Your task to perform on an android device: change your default location settings in chrome Image 0: 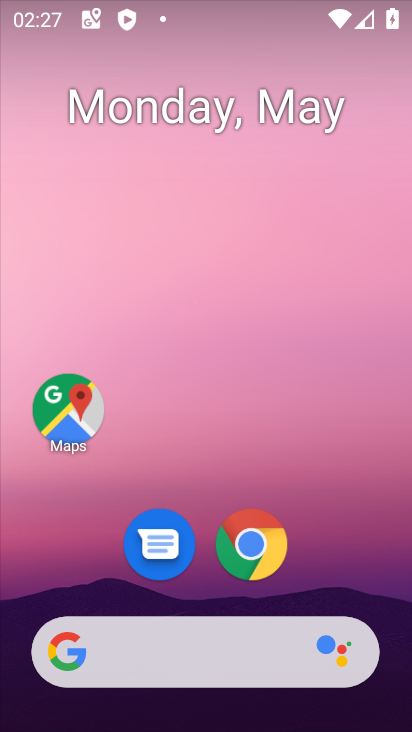
Step 0: drag from (371, 550) to (369, 220)
Your task to perform on an android device: change your default location settings in chrome Image 1: 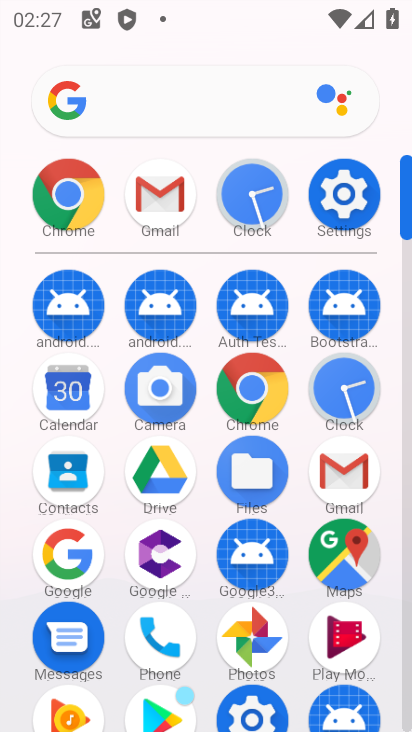
Step 1: click (269, 400)
Your task to perform on an android device: change your default location settings in chrome Image 2: 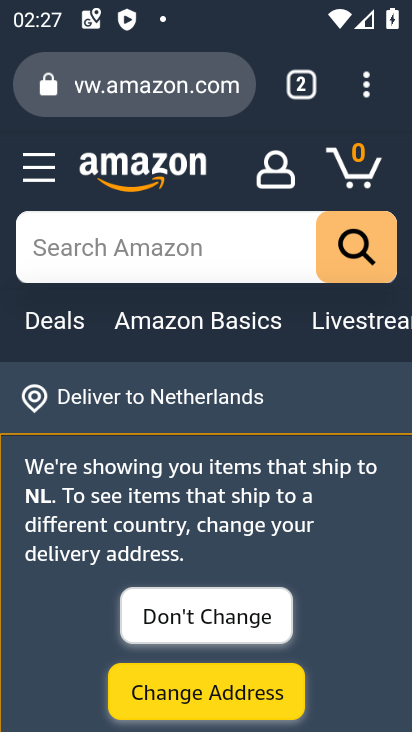
Step 2: click (366, 96)
Your task to perform on an android device: change your default location settings in chrome Image 3: 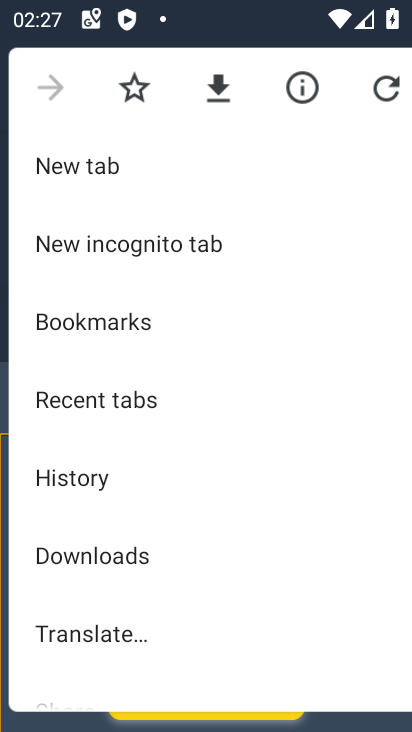
Step 3: drag from (299, 496) to (307, 361)
Your task to perform on an android device: change your default location settings in chrome Image 4: 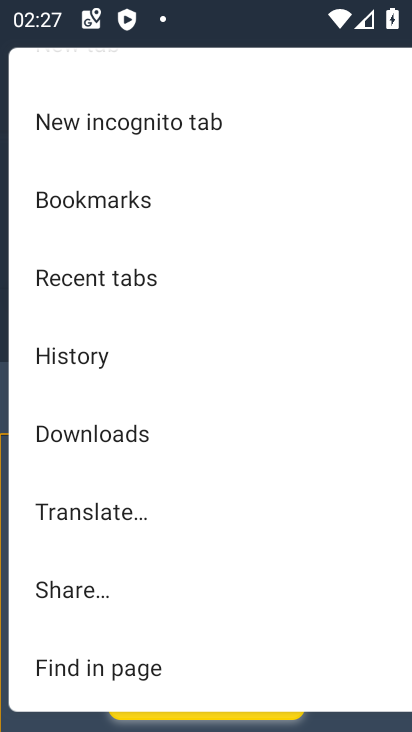
Step 4: drag from (304, 510) to (299, 357)
Your task to perform on an android device: change your default location settings in chrome Image 5: 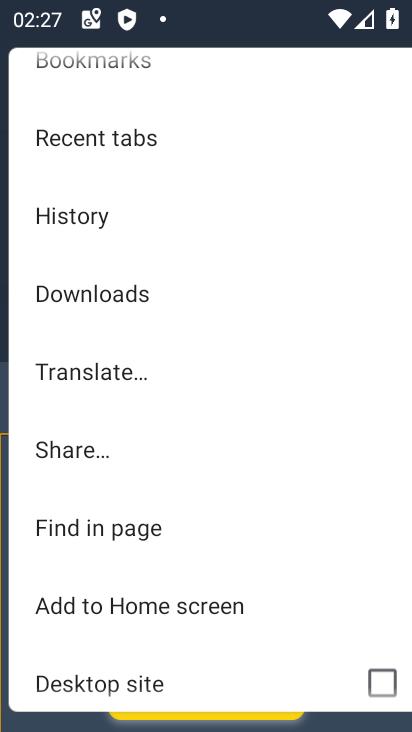
Step 5: drag from (332, 561) to (318, 328)
Your task to perform on an android device: change your default location settings in chrome Image 6: 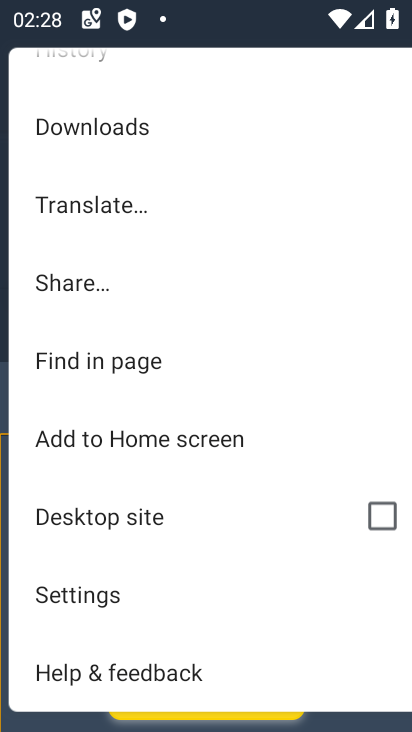
Step 6: drag from (287, 553) to (278, 451)
Your task to perform on an android device: change your default location settings in chrome Image 7: 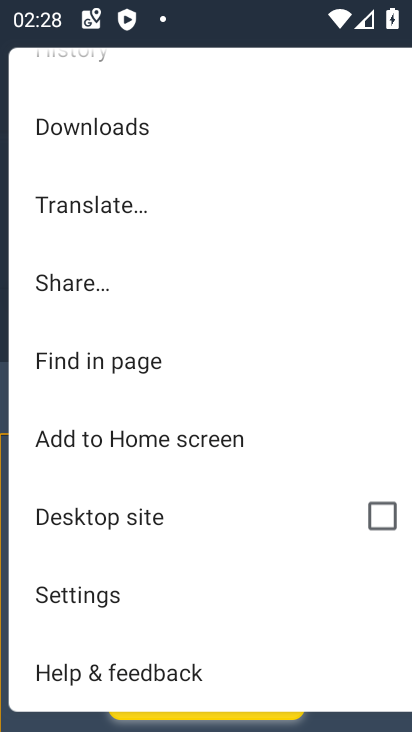
Step 7: click (139, 608)
Your task to perform on an android device: change your default location settings in chrome Image 8: 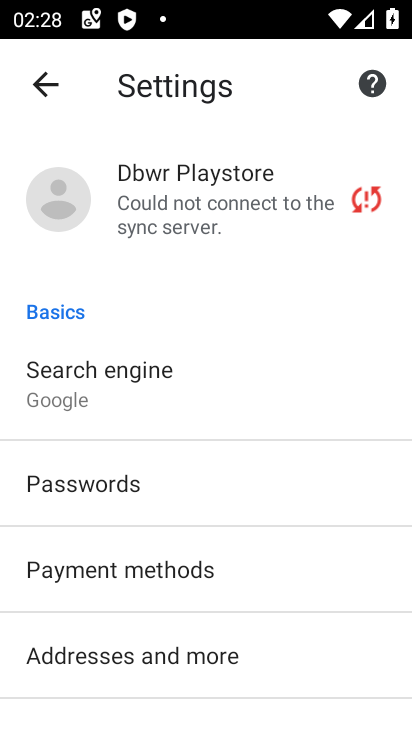
Step 8: drag from (294, 557) to (292, 447)
Your task to perform on an android device: change your default location settings in chrome Image 9: 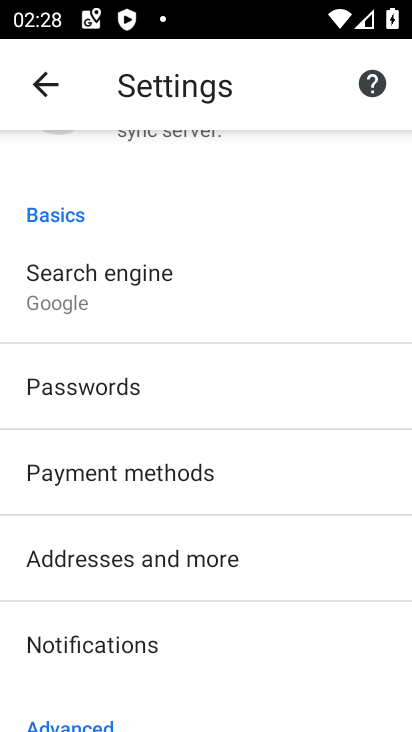
Step 9: drag from (290, 612) to (287, 453)
Your task to perform on an android device: change your default location settings in chrome Image 10: 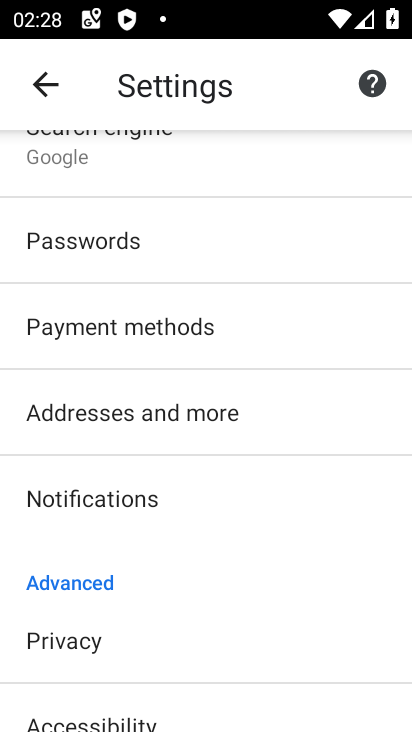
Step 10: drag from (275, 589) to (295, 468)
Your task to perform on an android device: change your default location settings in chrome Image 11: 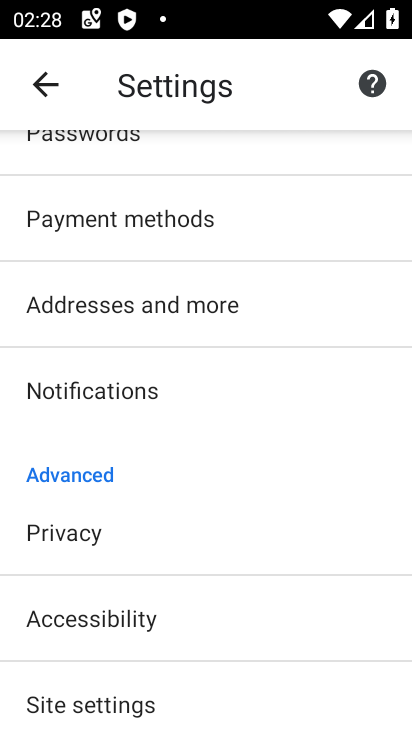
Step 11: drag from (279, 610) to (294, 476)
Your task to perform on an android device: change your default location settings in chrome Image 12: 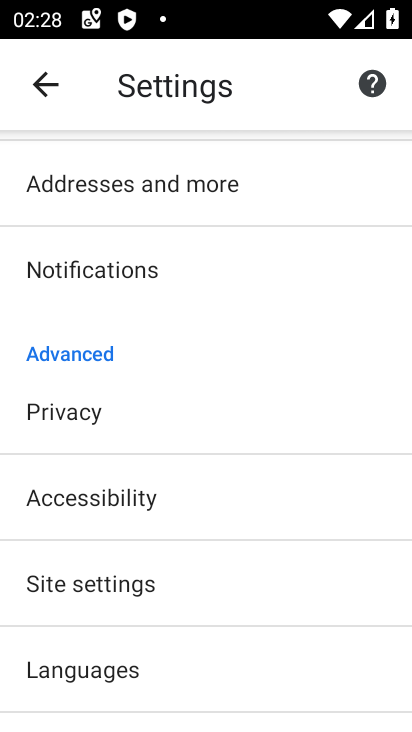
Step 12: drag from (288, 588) to (285, 459)
Your task to perform on an android device: change your default location settings in chrome Image 13: 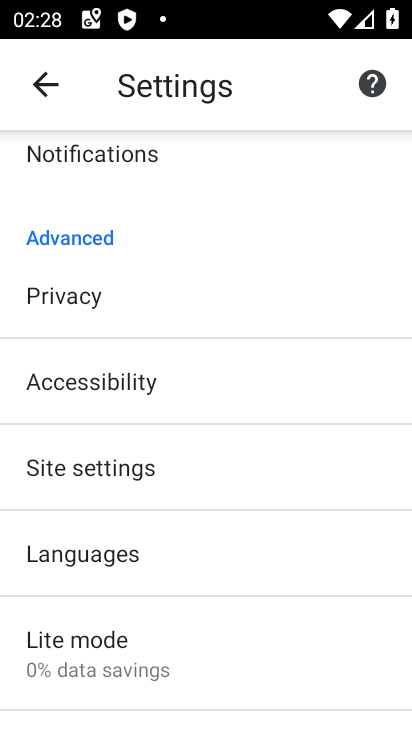
Step 13: click (226, 471)
Your task to perform on an android device: change your default location settings in chrome Image 14: 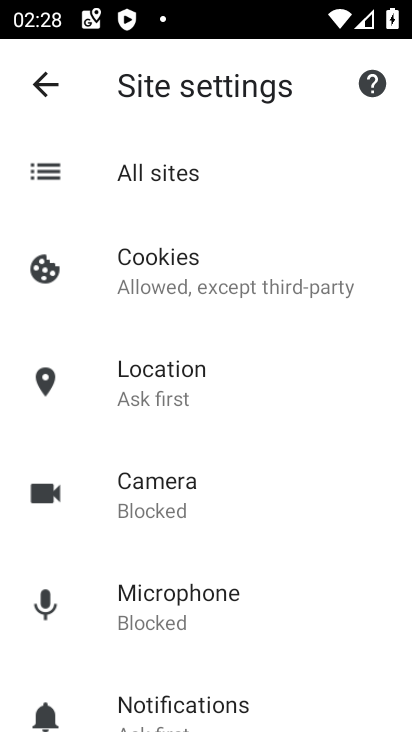
Step 14: click (210, 388)
Your task to perform on an android device: change your default location settings in chrome Image 15: 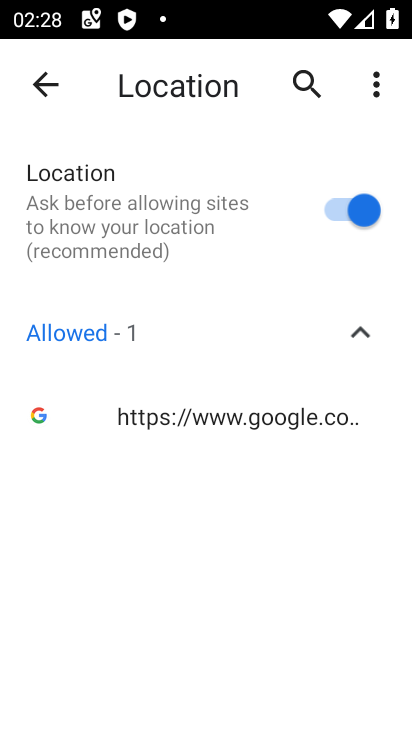
Step 15: click (337, 215)
Your task to perform on an android device: change your default location settings in chrome Image 16: 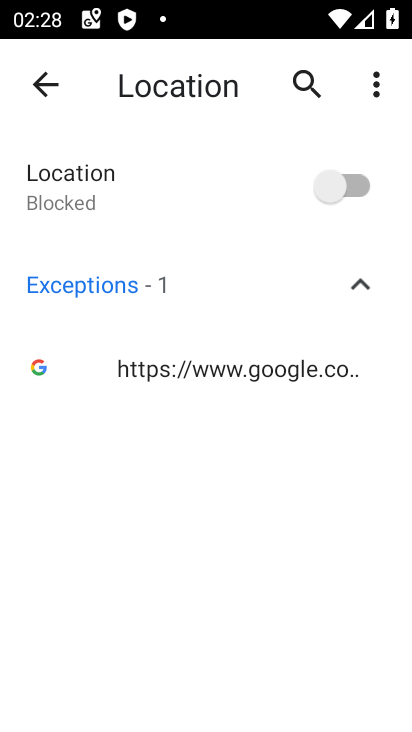
Step 16: task complete